Your task to perform on an android device: Go to internet settings Image 0: 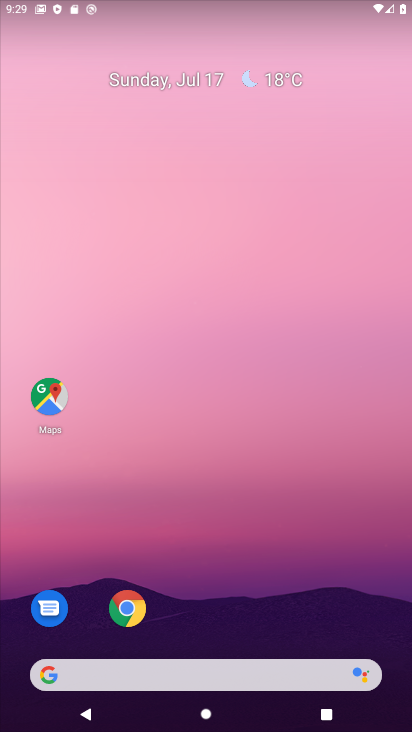
Step 0: drag from (227, 593) to (220, 256)
Your task to perform on an android device: Go to internet settings Image 1: 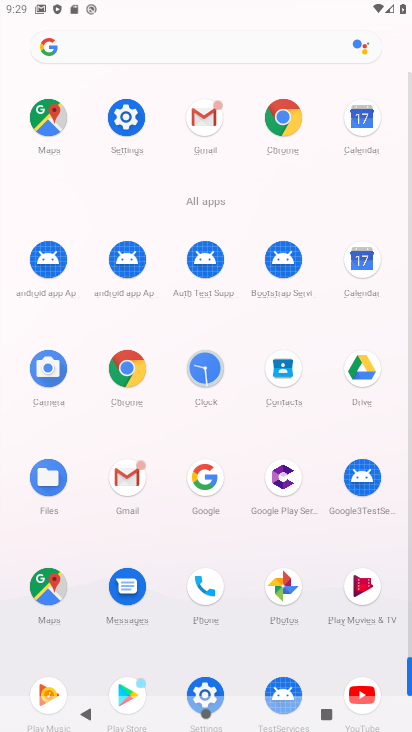
Step 1: click (122, 131)
Your task to perform on an android device: Go to internet settings Image 2: 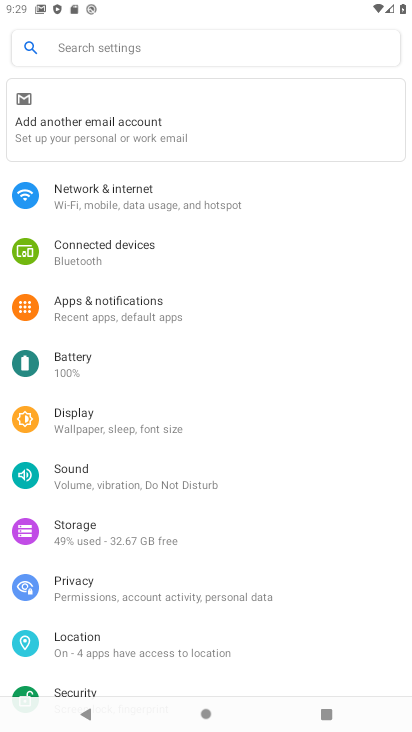
Step 2: click (98, 193)
Your task to perform on an android device: Go to internet settings Image 3: 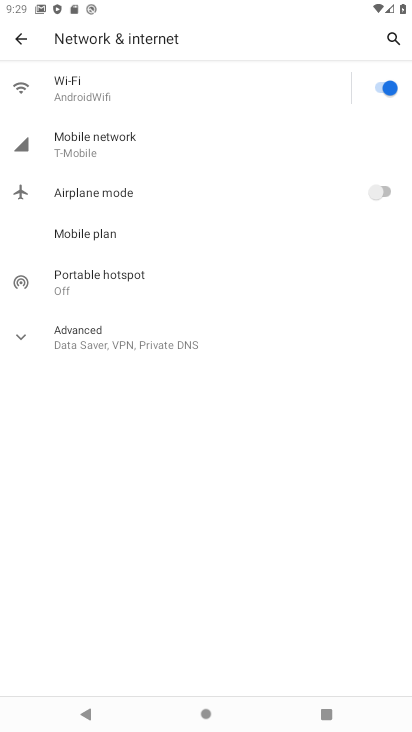
Step 3: task complete